Your task to perform on an android device: open app "The Home Depot" (install if not already installed) and go to login screen Image 0: 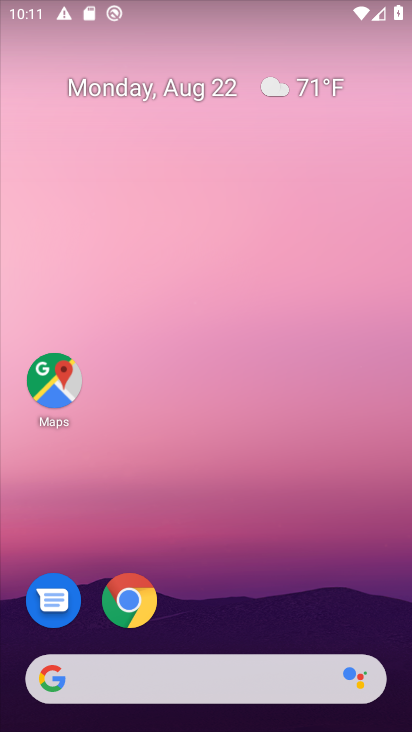
Step 0: drag from (182, 511) to (165, 98)
Your task to perform on an android device: open app "The Home Depot" (install if not already installed) and go to login screen Image 1: 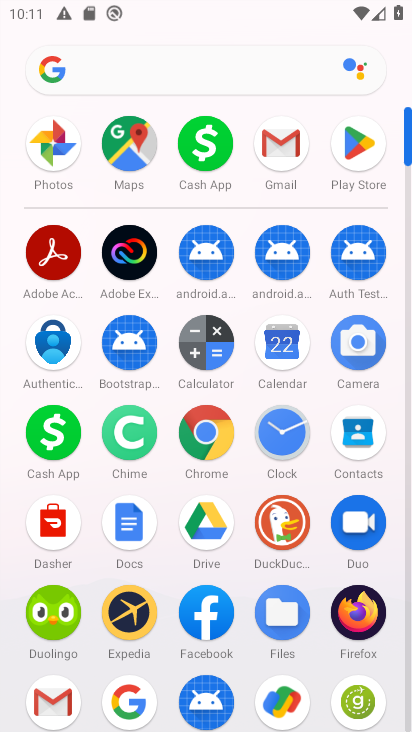
Step 1: click (341, 154)
Your task to perform on an android device: open app "The Home Depot" (install if not already installed) and go to login screen Image 2: 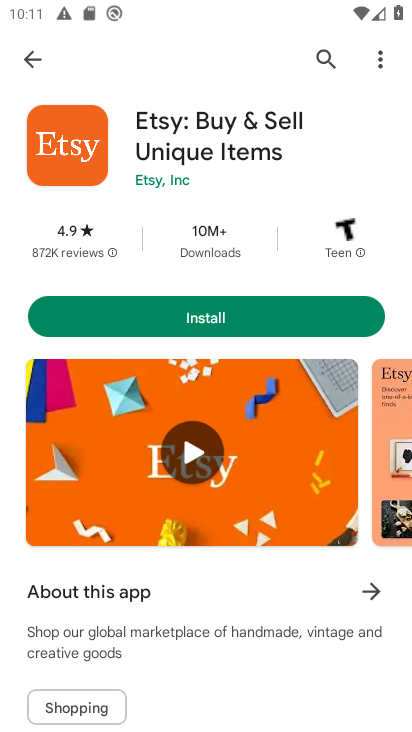
Step 2: click (327, 57)
Your task to perform on an android device: open app "The Home Depot" (install if not already installed) and go to login screen Image 3: 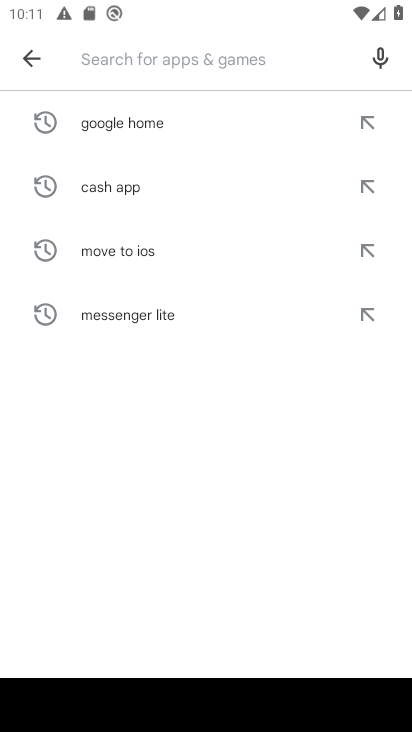
Step 3: click (261, 67)
Your task to perform on an android device: open app "The Home Depot" (install if not already installed) and go to login screen Image 4: 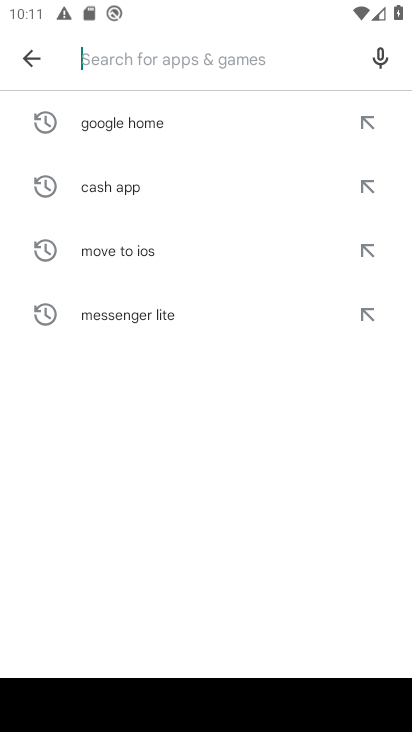
Step 4: type "The Home Depot"
Your task to perform on an android device: open app "The Home Depot" (install if not already installed) and go to login screen Image 5: 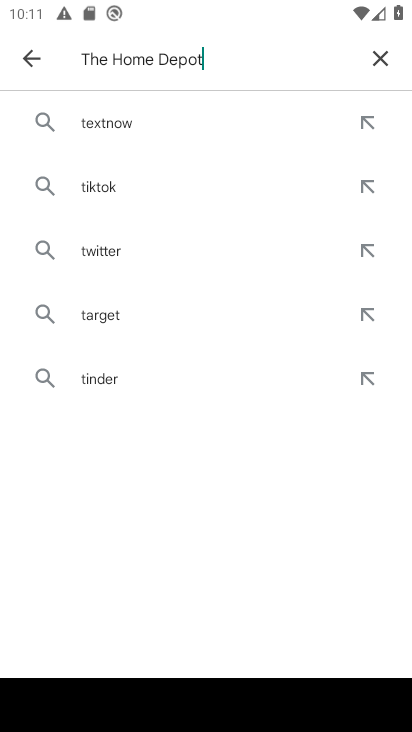
Step 5: type ""
Your task to perform on an android device: open app "The Home Depot" (install if not already installed) and go to login screen Image 6: 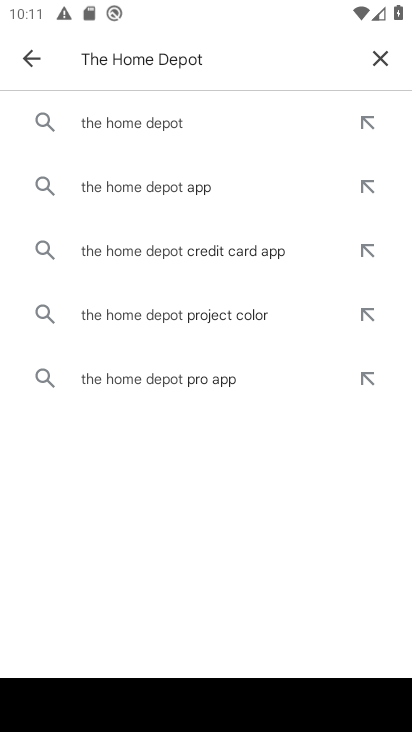
Step 6: click (178, 123)
Your task to perform on an android device: open app "The Home Depot" (install if not already installed) and go to login screen Image 7: 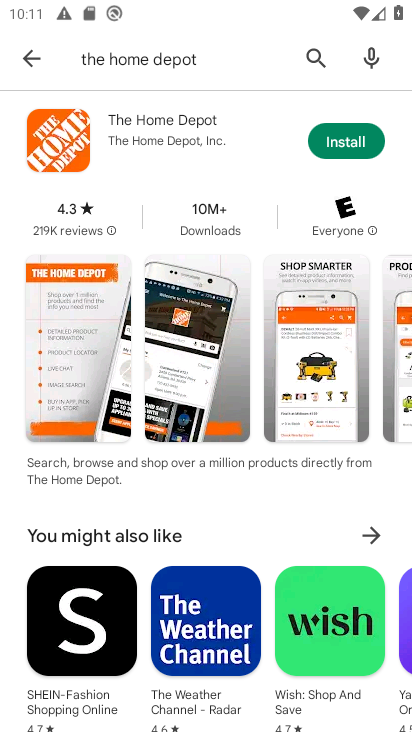
Step 7: click (343, 127)
Your task to perform on an android device: open app "The Home Depot" (install if not already installed) and go to login screen Image 8: 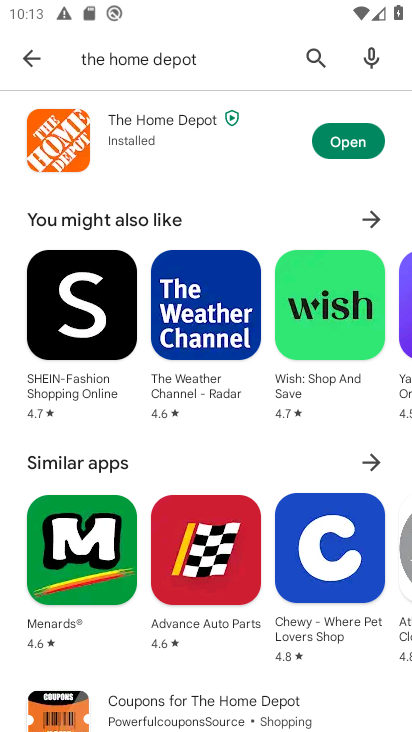
Step 8: click (339, 151)
Your task to perform on an android device: open app "The Home Depot" (install if not already installed) and go to login screen Image 9: 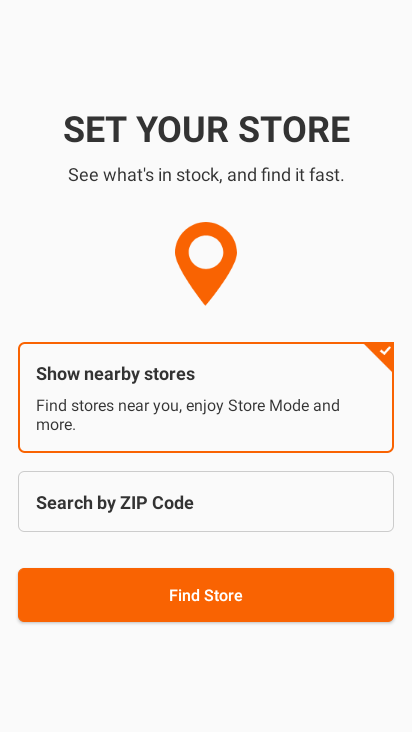
Step 9: task complete